Your task to perform on an android device: When is my next appointment? Image 0: 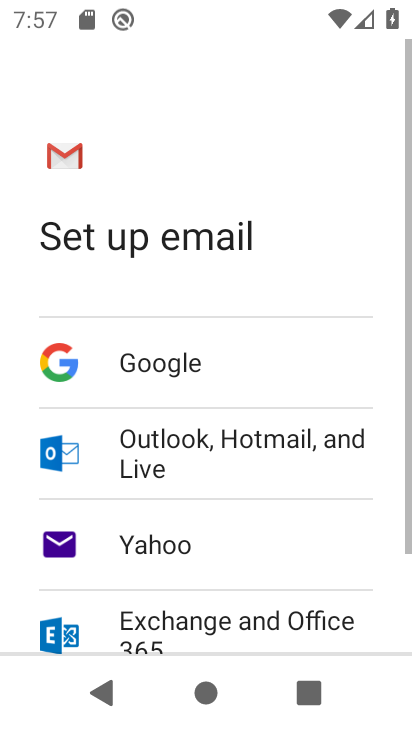
Step 0: press home button
Your task to perform on an android device: When is my next appointment? Image 1: 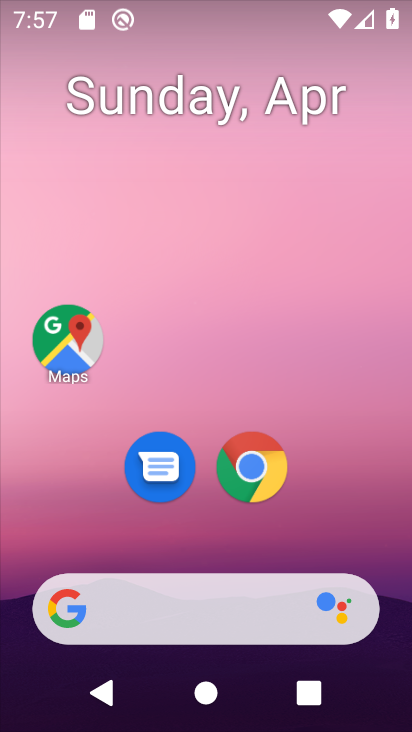
Step 1: drag from (290, 365) to (195, 43)
Your task to perform on an android device: When is my next appointment? Image 2: 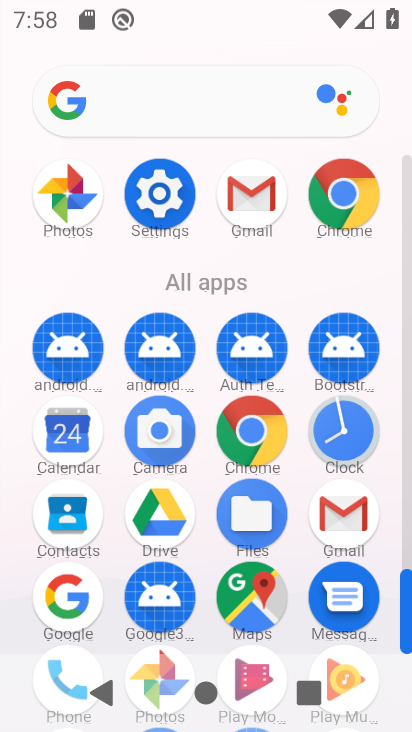
Step 2: click (65, 436)
Your task to perform on an android device: When is my next appointment? Image 3: 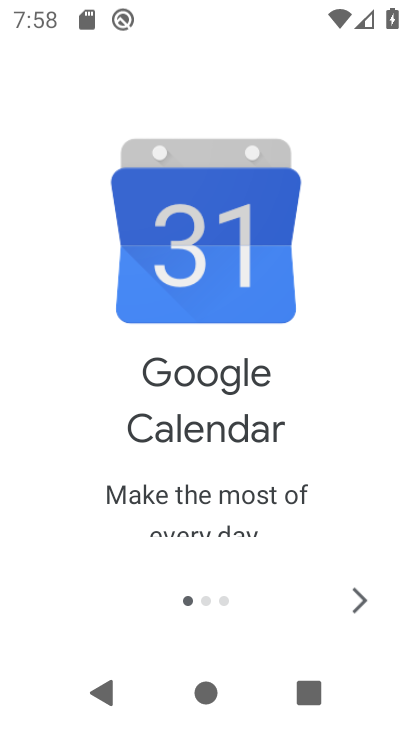
Step 3: click (351, 602)
Your task to perform on an android device: When is my next appointment? Image 4: 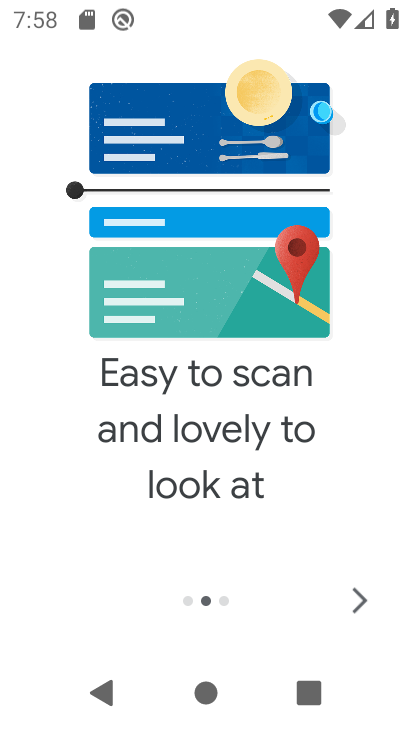
Step 4: click (351, 602)
Your task to perform on an android device: When is my next appointment? Image 5: 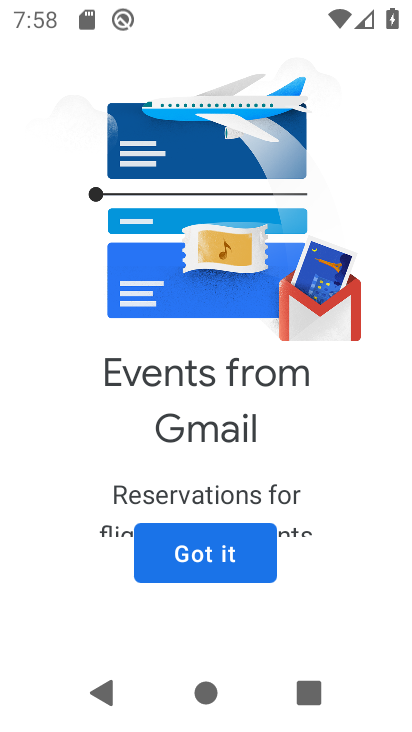
Step 5: click (209, 541)
Your task to perform on an android device: When is my next appointment? Image 6: 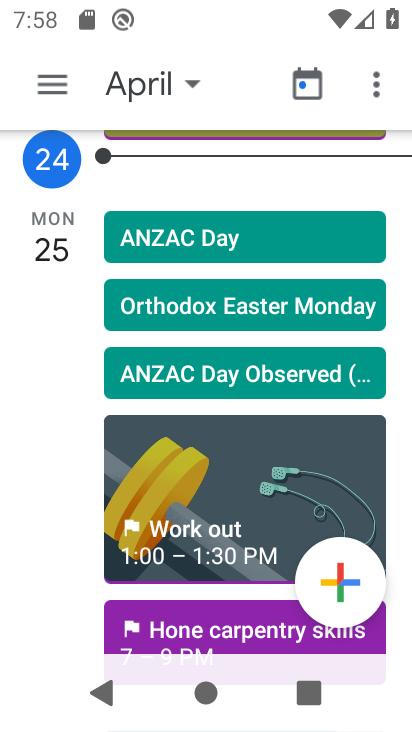
Step 6: click (137, 84)
Your task to perform on an android device: When is my next appointment? Image 7: 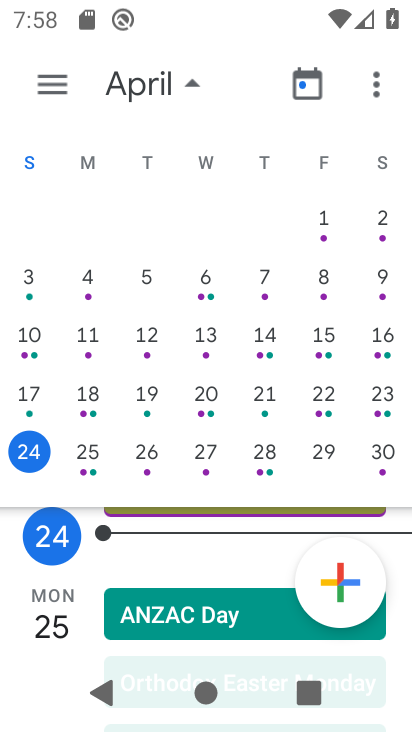
Step 7: click (41, 460)
Your task to perform on an android device: When is my next appointment? Image 8: 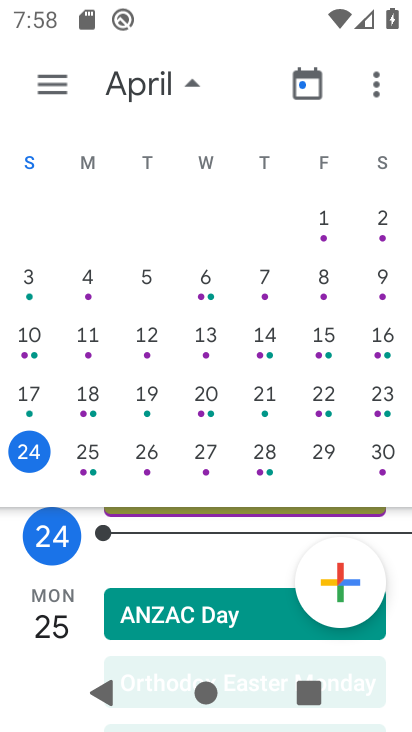
Step 8: click (87, 470)
Your task to perform on an android device: When is my next appointment? Image 9: 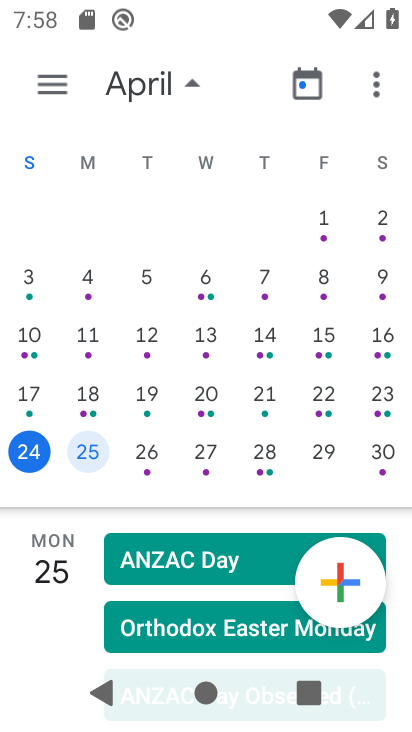
Step 9: task complete